Your task to perform on an android device: open a bookmark in the chrome app Image 0: 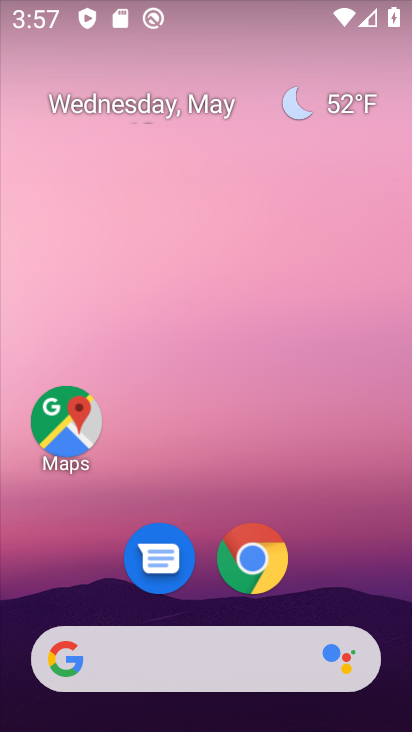
Step 0: click (251, 585)
Your task to perform on an android device: open a bookmark in the chrome app Image 1: 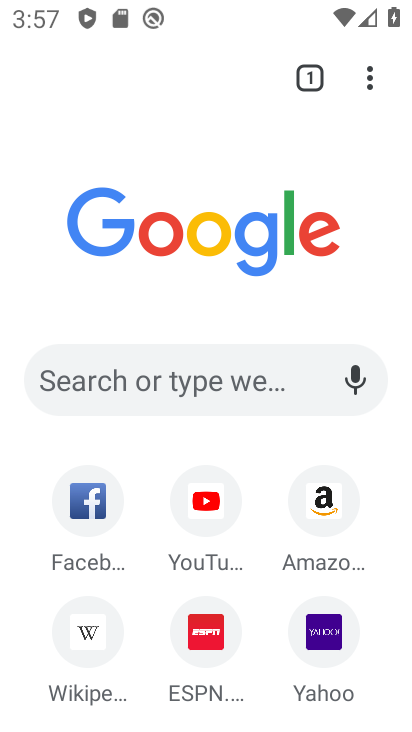
Step 1: task complete